Your task to perform on an android device: Open the map Image 0: 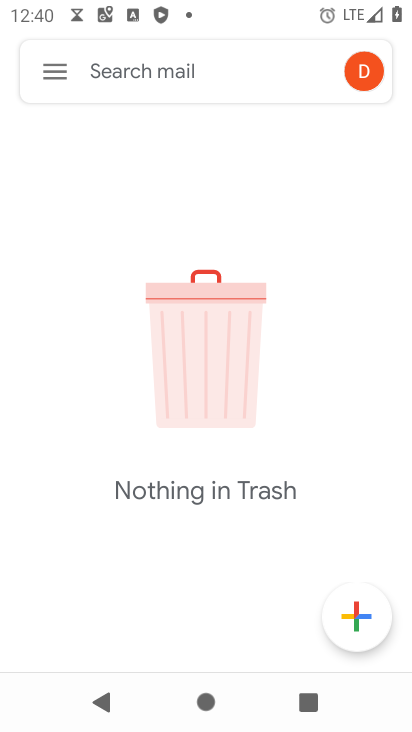
Step 0: press home button
Your task to perform on an android device: Open the map Image 1: 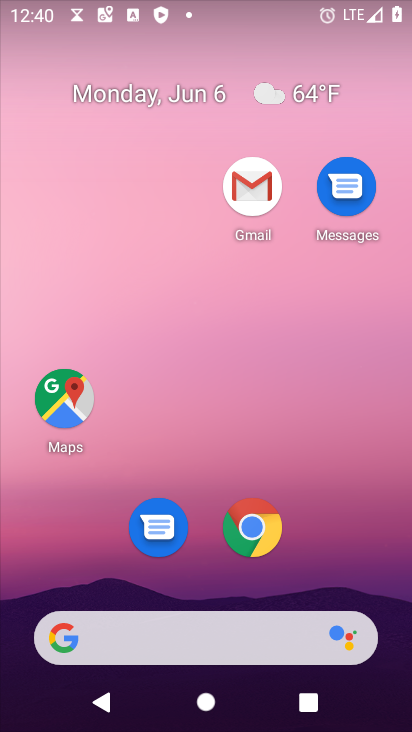
Step 1: click (60, 387)
Your task to perform on an android device: Open the map Image 2: 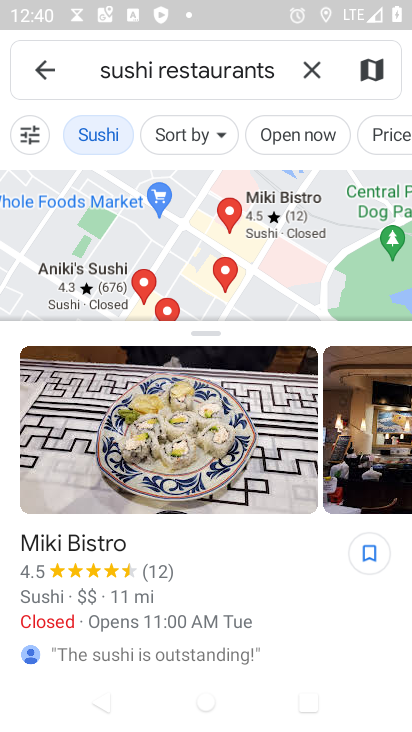
Step 2: task complete